Your task to perform on an android device: turn off improve location accuracy Image 0: 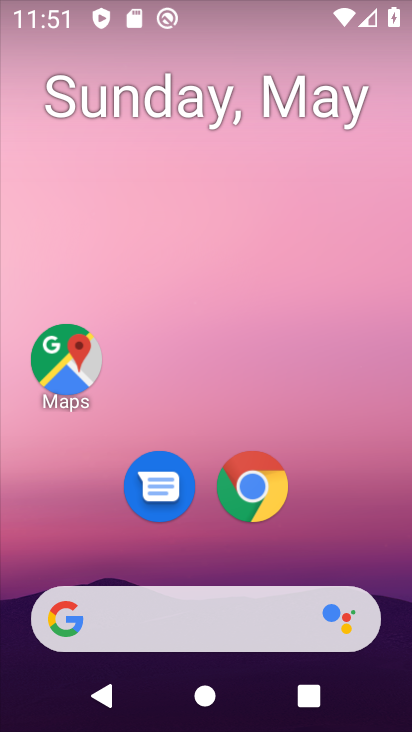
Step 0: drag from (397, 598) to (372, 43)
Your task to perform on an android device: turn off improve location accuracy Image 1: 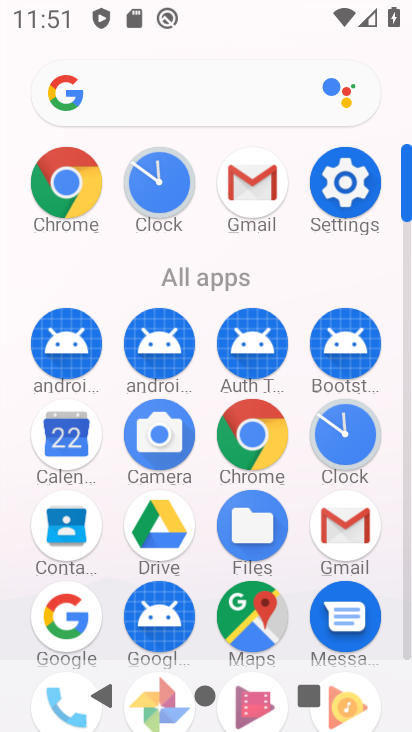
Step 1: click (405, 630)
Your task to perform on an android device: turn off improve location accuracy Image 2: 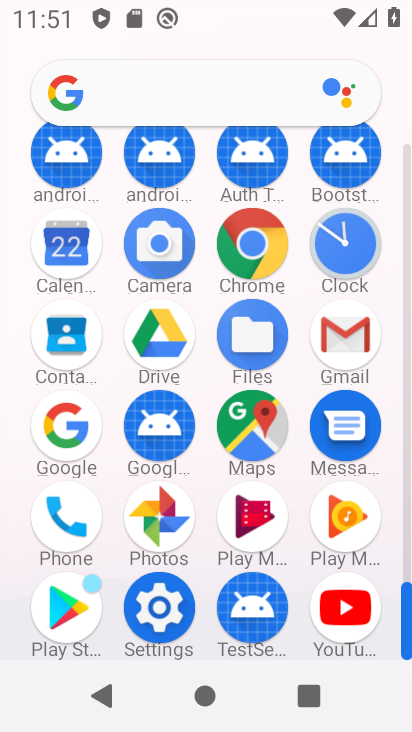
Step 2: click (157, 607)
Your task to perform on an android device: turn off improve location accuracy Image 3: 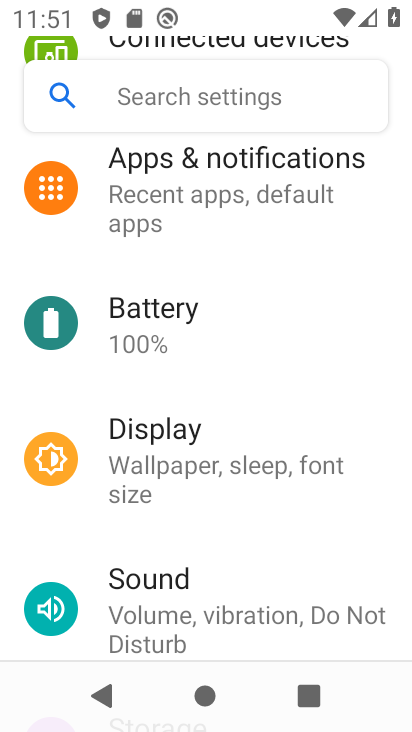
Step 3: drag from (359, 574) to (378, 175)
Your task to perform on an android device: turn off improve location accuracy Image 4: 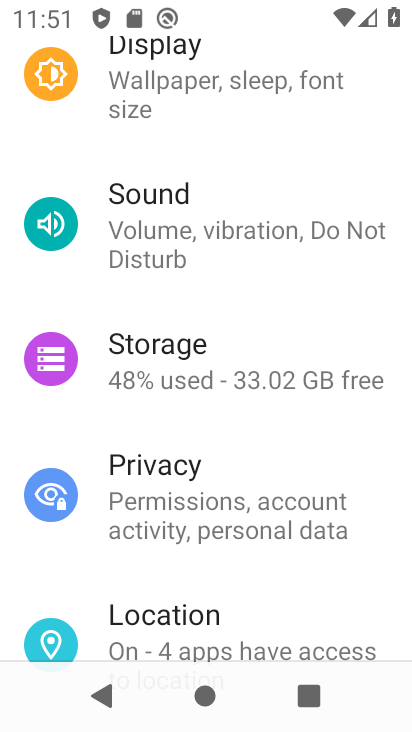
Step 4: click (186, 617)
Your task to perform on an android device: turn off improve location accuracy Image 5: 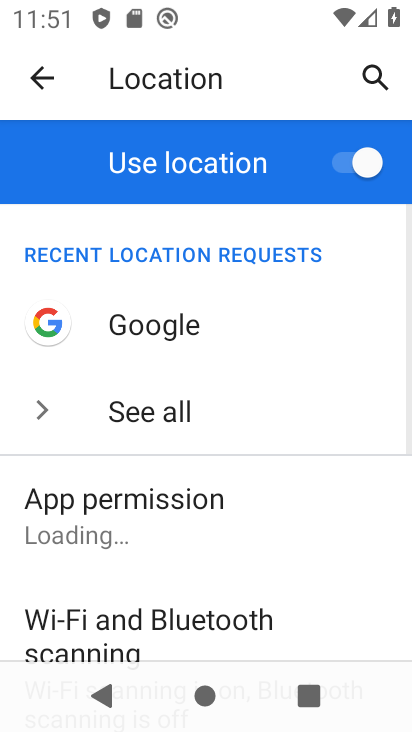
Step 5: drag from (318, 587) to (332, 199)
Your task to perform on an android device: turn off improve location accuracy Image 6: 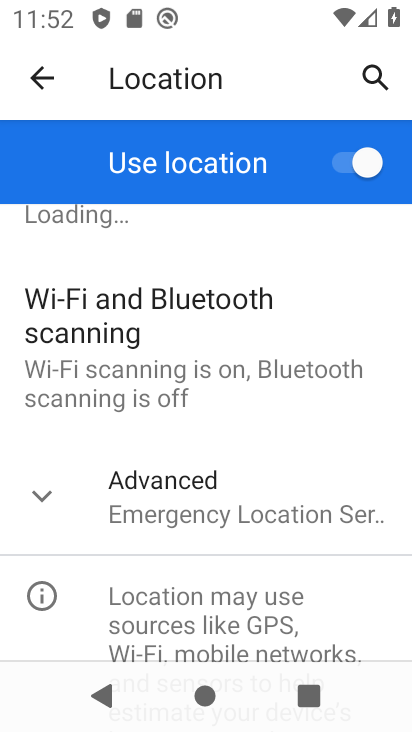
Step 6: click (33, 497)
Your task to perform on an android device: turn off improve location accuracy Image 7: 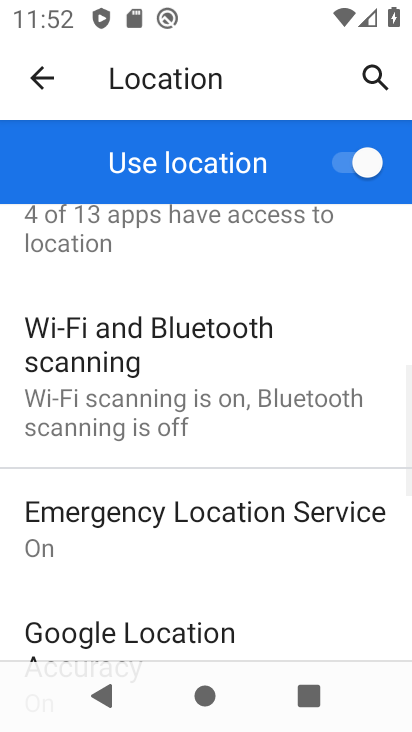
Step 7: drag from (362, 545) to (333, 44)
Your task to perform on an android device: turn off improve location accuracy Image 8: 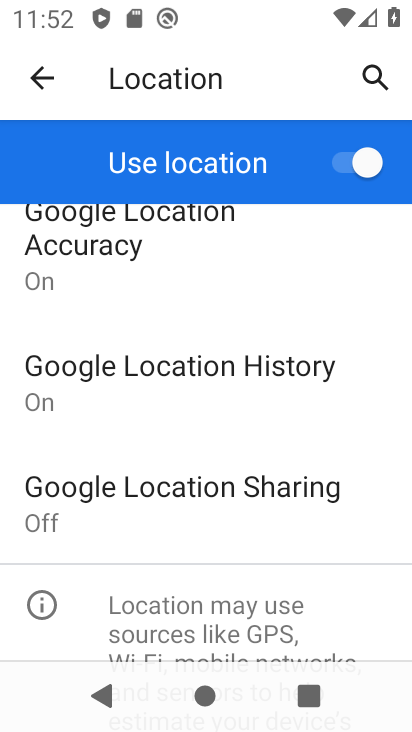
Step 8: click (90, 250)
Your task to perform on an android device: turn off improve location accuracy Image 9: 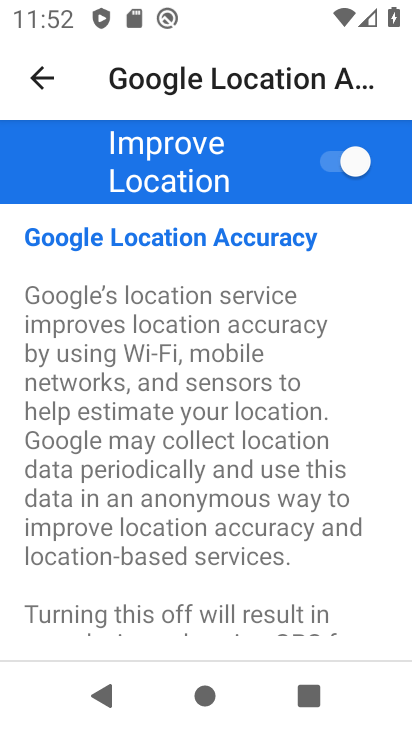
Step 9: click (326, 164)
Your task to perform on an android device: turn off improve location accuracy Image 10: 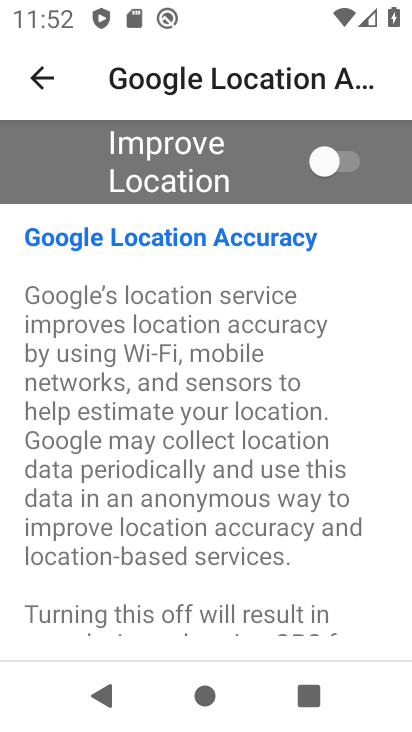
Step 10: task complete